Your task to perform on an android device: toggle location history Image 0: 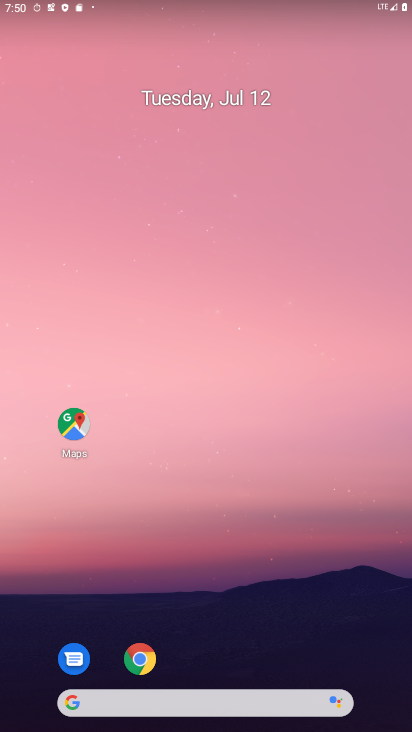
Step 0: drag from (375, 644) to (154, 2)
Your task to perform on an android device: toggle location history Image 1: 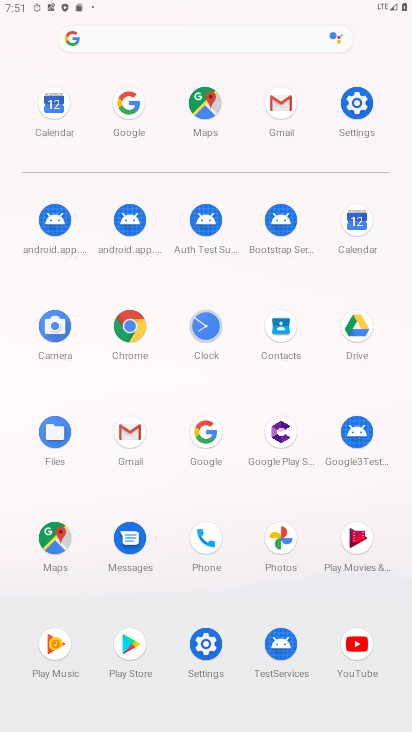
Step 1: click (195, 657)
Your task to perform on an android device: toggle location history Image 2: 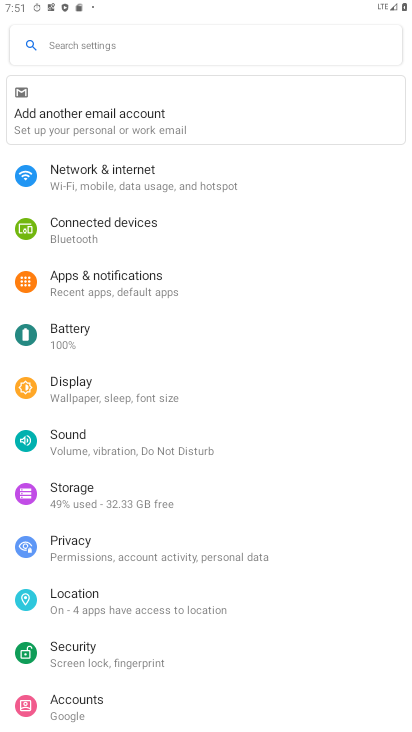
Step 2: click (144, 607)
Your task to perform on an android device: toggle location history Image 3: 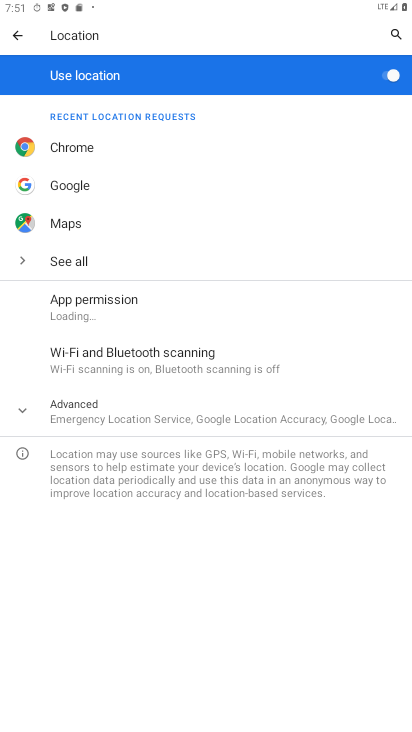
Step 3: click (104, 402)
Your task to perform on an android device: toggle location history Image 4: 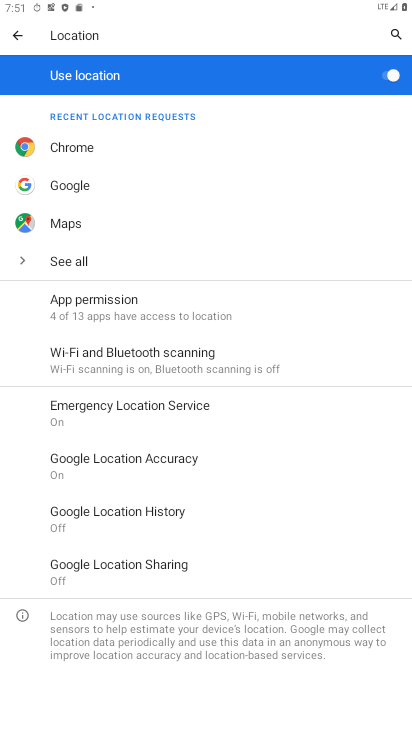
Step 4: click (102, 521)
Your task to perform on an android device: toggle location history Image 5: 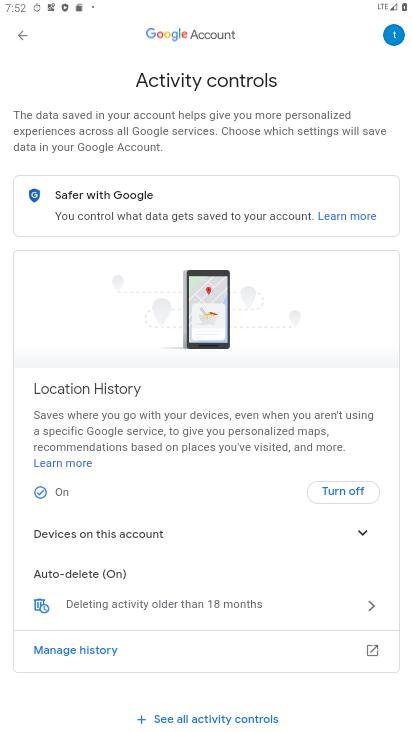
Step 5: click (334, 493)
Your task to perform on an android device: toggle location history Image 6: 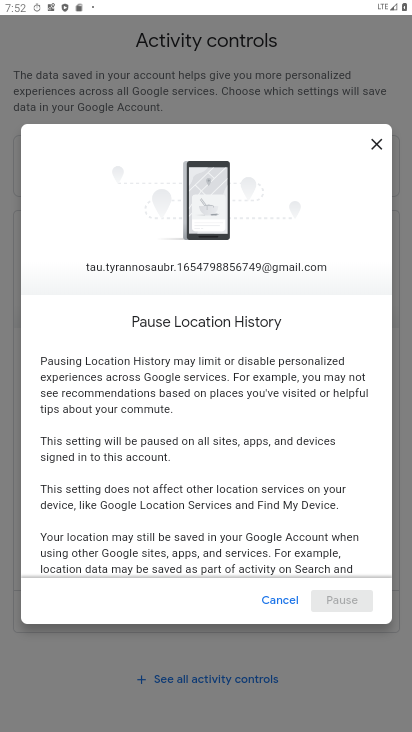
Step 6: task complete